Your task to perform on an android device: Go to Reddit.com Image 0: 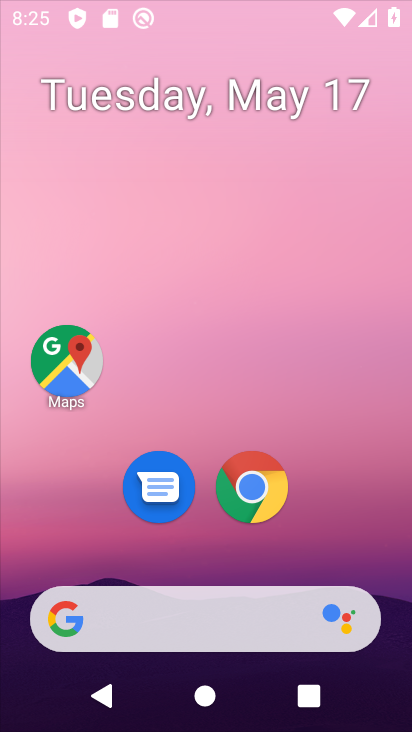
Step 0: press home button
Your task to perform on an android device: Go to Reddit.com Image 1: 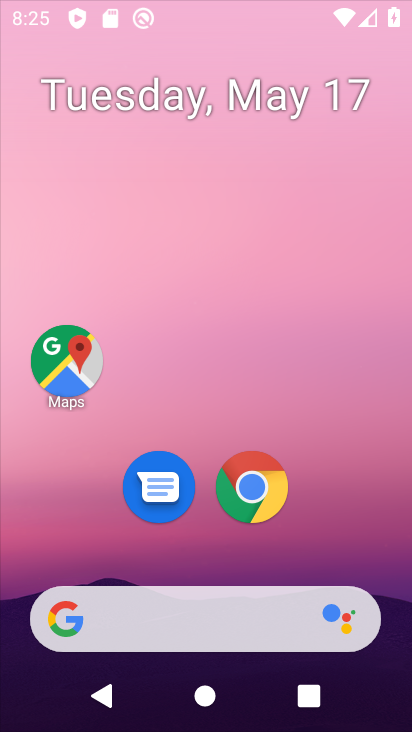
Step 1: click (231, 226)
Your task to perform on an android device: Go to Reddit.com Image 2: 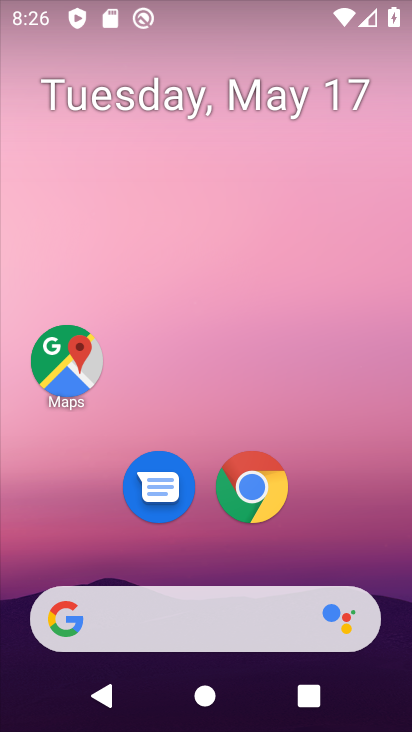
Step 2: drag from (264, 634) to (278, 169)
Your task to perform on an android device: Go to Reddit.com Image 3: 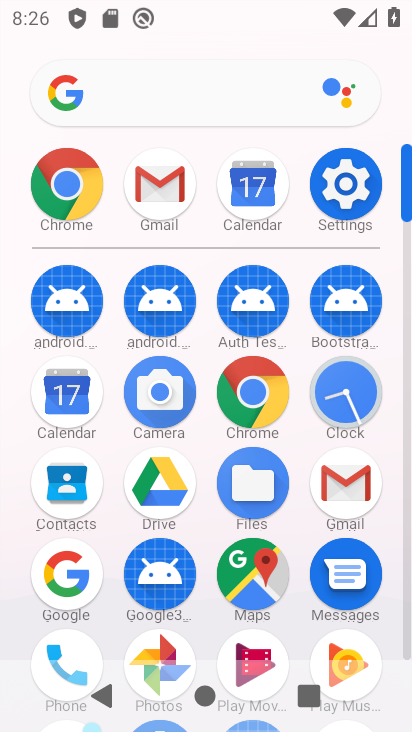
Step 3: click (65, 179)
Your task to perform on an android device: Go to Reddit.com Image 4: 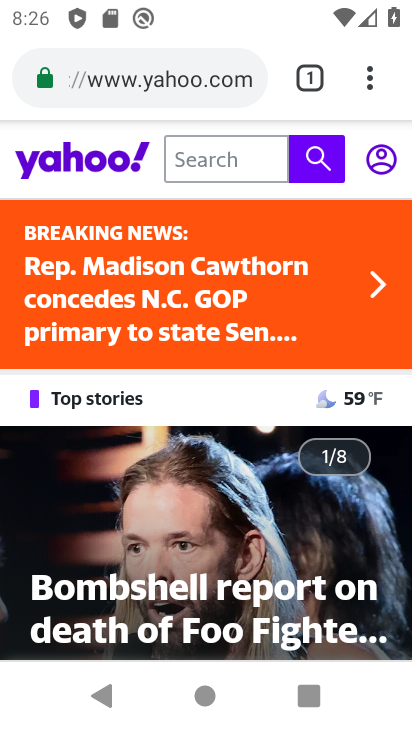
Step 4: click (167, 79)
Your task to perform on an android device: Go to Reddit.com Image 5: 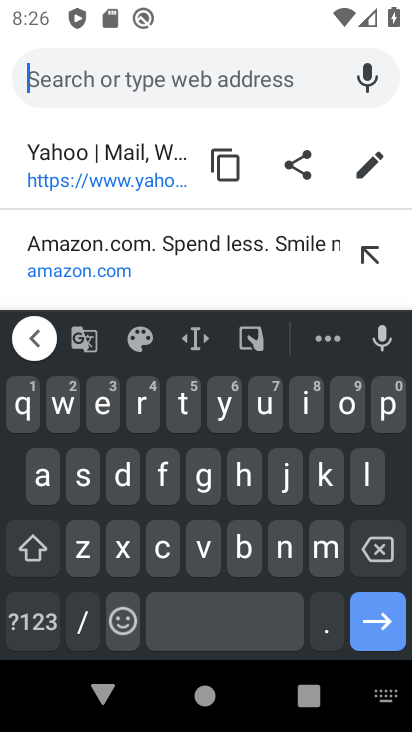
Step 5: click (143, 396)
Your task to perform on an android device: Go to Reddit.com Image 6: 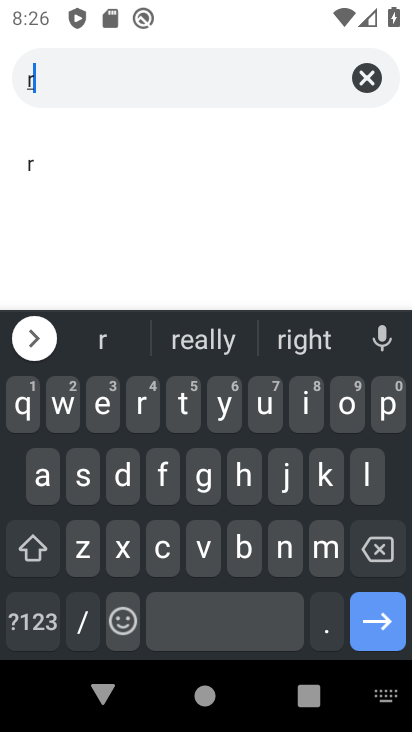
Step 6: click (103, 405)
Your task to perform on an android device: Go to Reddit.com Image 7: 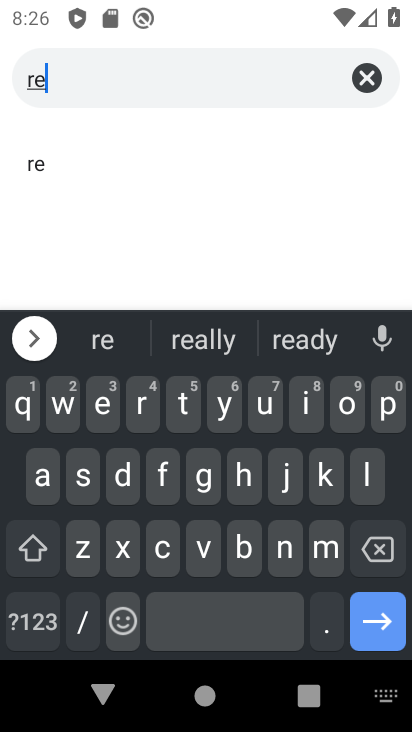
Step 7: click (127, 478)
Your task to perform on an android device: Go to Reddit.com Image 8: 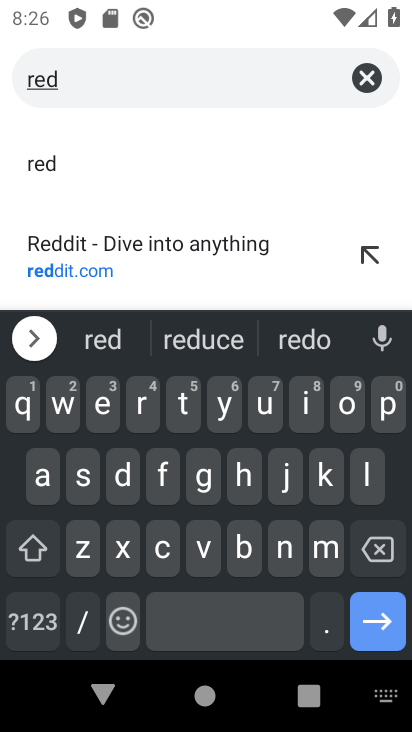
Step 8: click (122, 478)
Your task to perform on an android device: Go to Reddit.com Image 9: 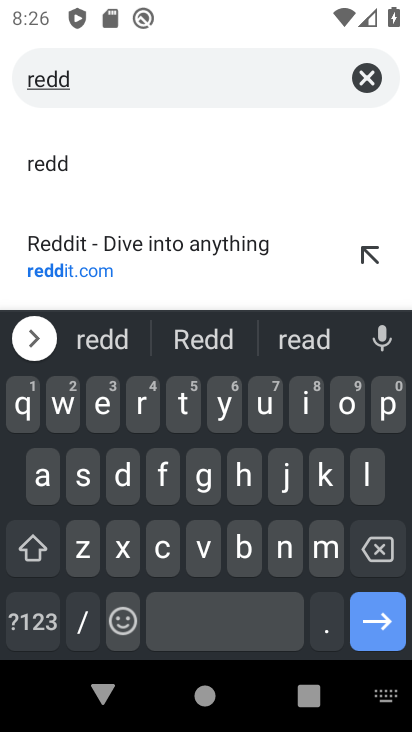
Step 9: click (297, 416)
Your task to perform on an android device: Go to Reddit.com Image 10: 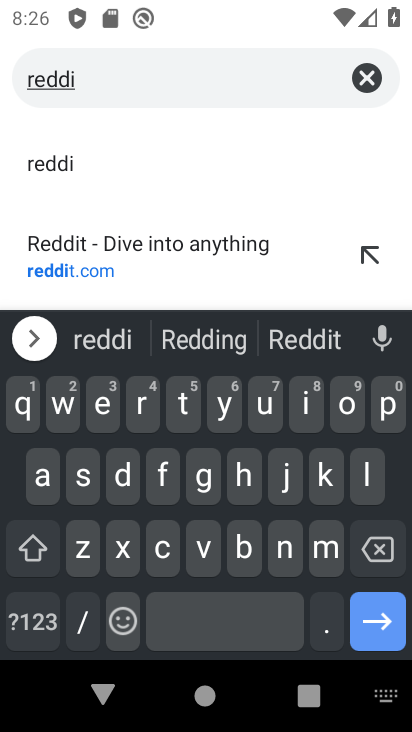
Step 10: click (286, 348)
Your task to perform on an android device: Go to Reddit.com Image 11: 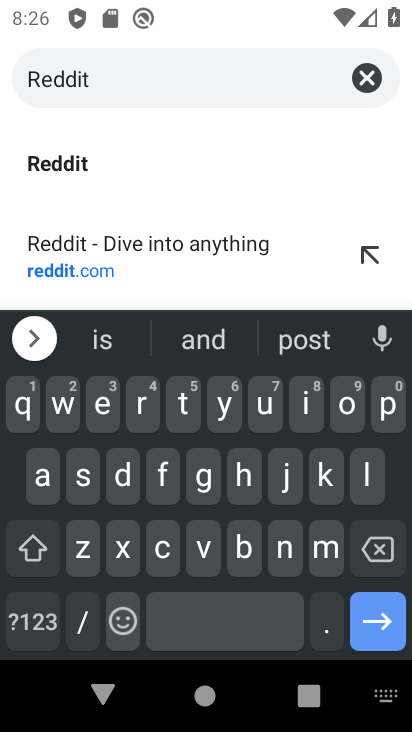
Step 11: click (327, 634)
Your task to perform on an android device: Go to Reddit.com Image 12: 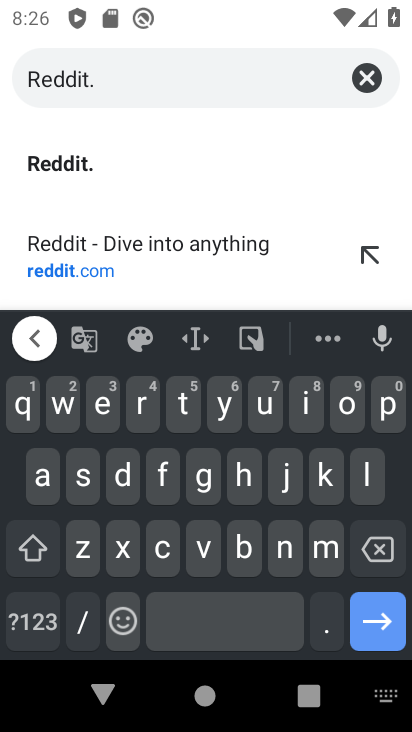
Step 12: click (166, 550)
Your task to perform on an android device: Go to Reddit.com Image 13: 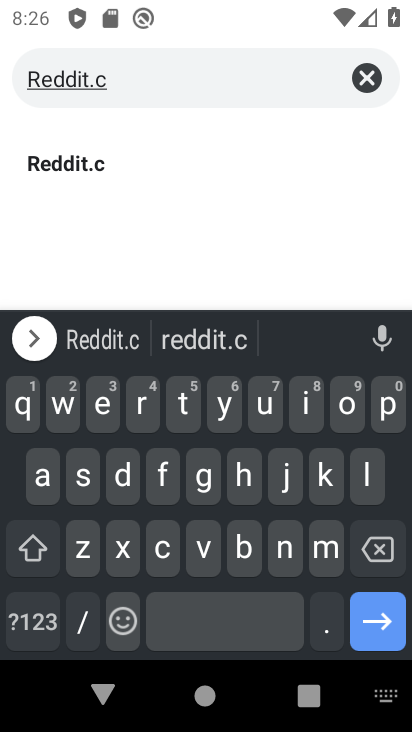
Step 13: click (357, 415)
Your task to perform on an android device: Go to Reddit.com Image 14: 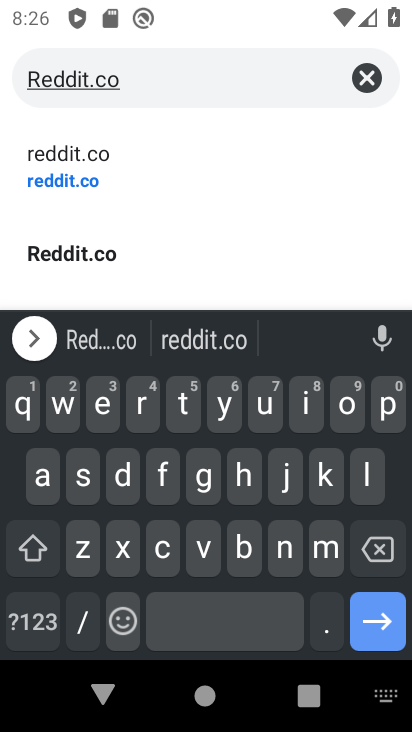
Step 14: click (335, 556)
Your task to perform on an android device: Go to Reddit.com Image 15: 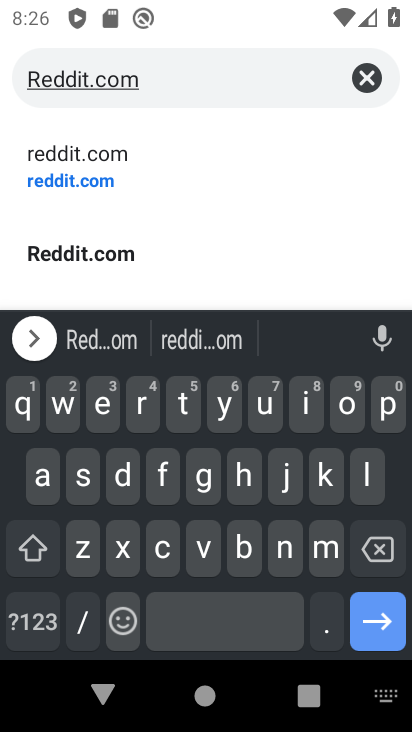
Step 15: click (380, 628)
Your task to perform on an android device: Go to Reddit.com Image 16: 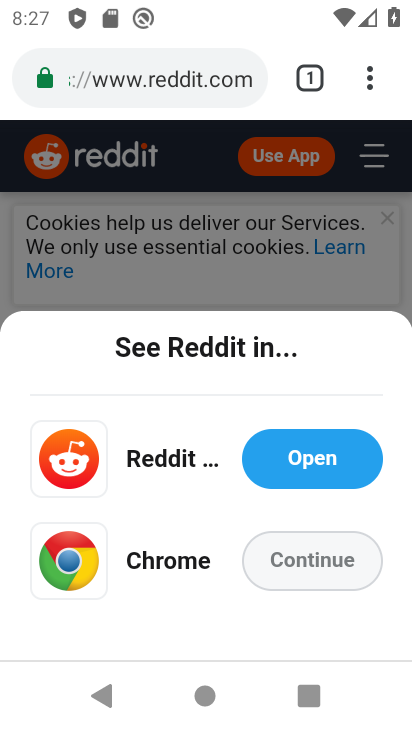
Step 16: click (306, 555)
Your task to perform on an android device: Go to Reddit.com Image 17: 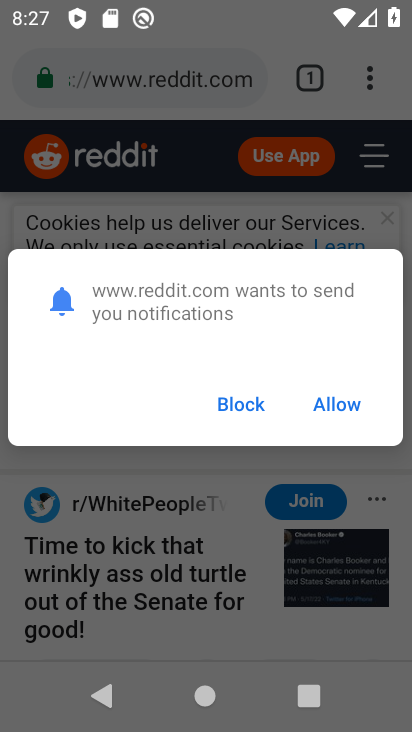
Step 17: click (236, 403)
Your task to perform on an android device: Go to Reddit.com Image 18: 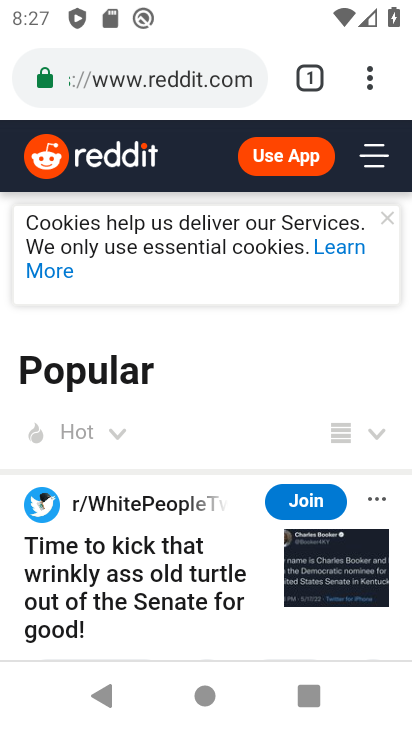
Step 18: task complete